Your task to perform on an android device: Go to eBay Image 0: 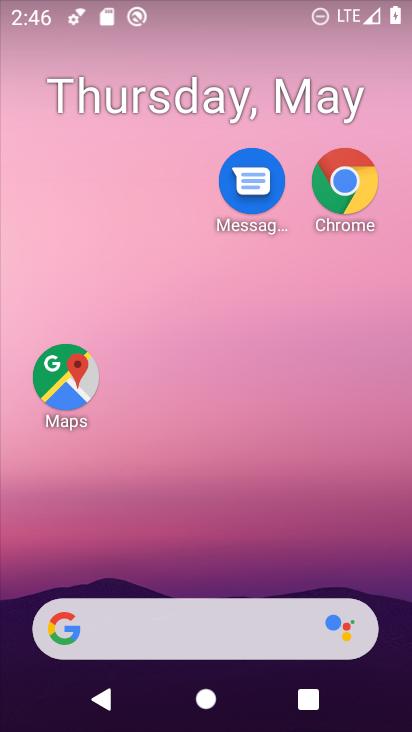
Step 0: drag from (306, 638) to (336, 43)
Your task to perform on an android device: Go to eBay Image 1: 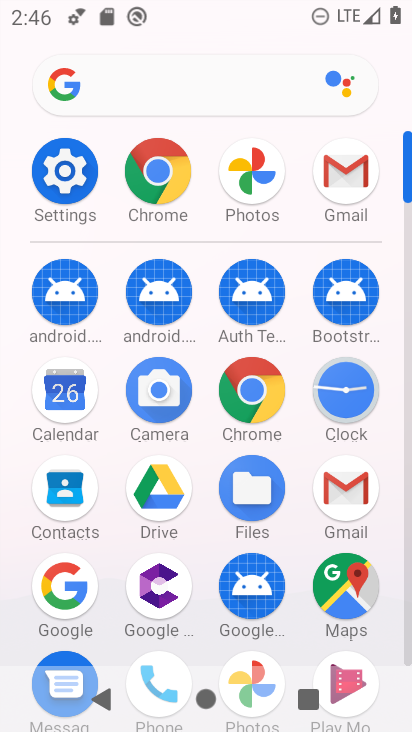
Step 1: click (227, 388)
Your task to perform on an android device: Go to eBay Image 2: 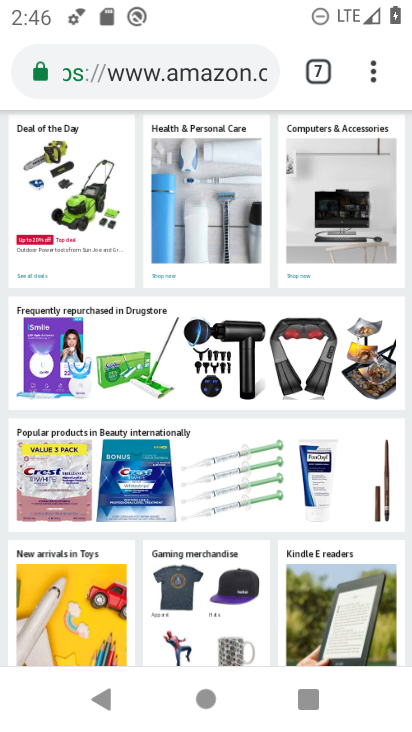
Step 2: click (325, 75)
Your task to perform on an android device: Go to eBay Image 3: 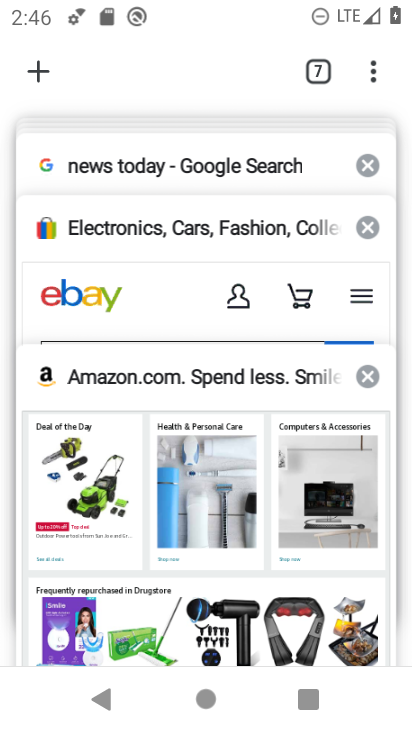
Step 3: drag from (212, 208) to (213, 413)
Your task to perform on an android device: Go to eBay Image 4: 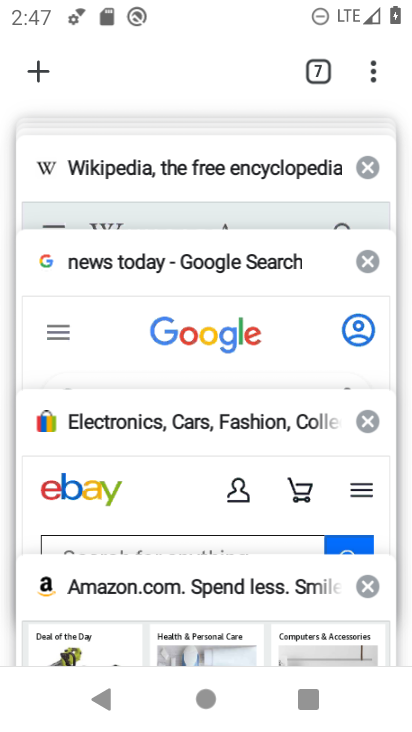
Step 4: click (103, 500)
Your task to perform on an android device: Go to eBay Image 5: 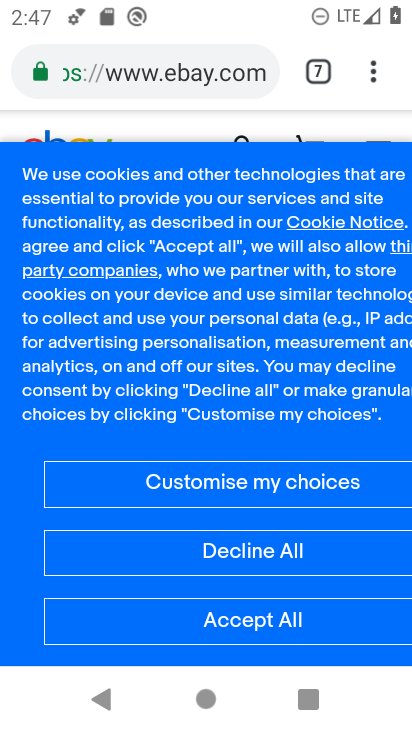
Step 5: task complete